Your task to perform on an android device: Open the map Image 0: 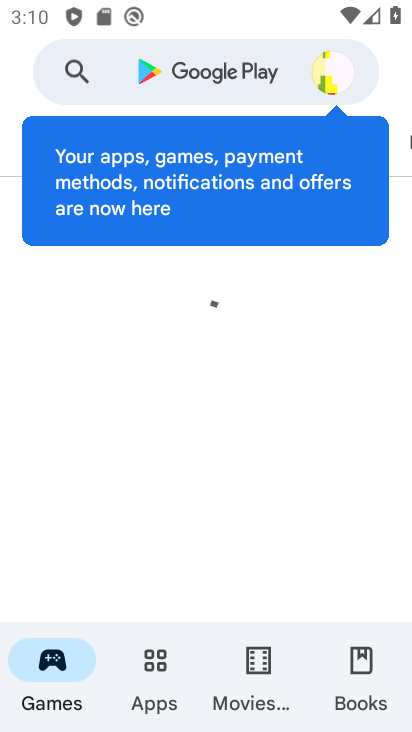
Step 0: press home button
Your task to perform on an android device: Open the map Image 1: 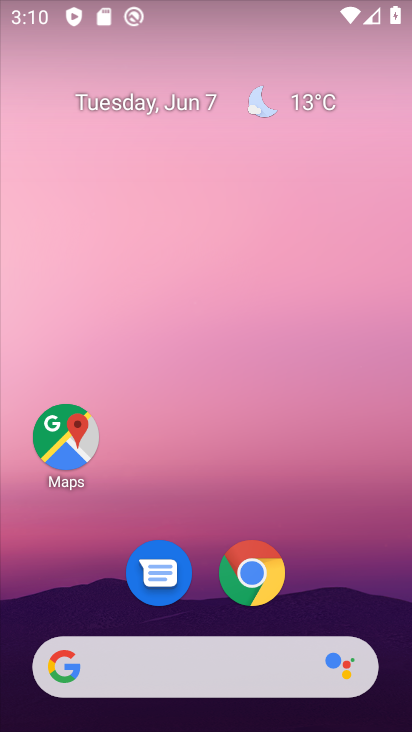
Step 1: click (85, 455)
Your task to perform on an android device: Open the map Image 2: 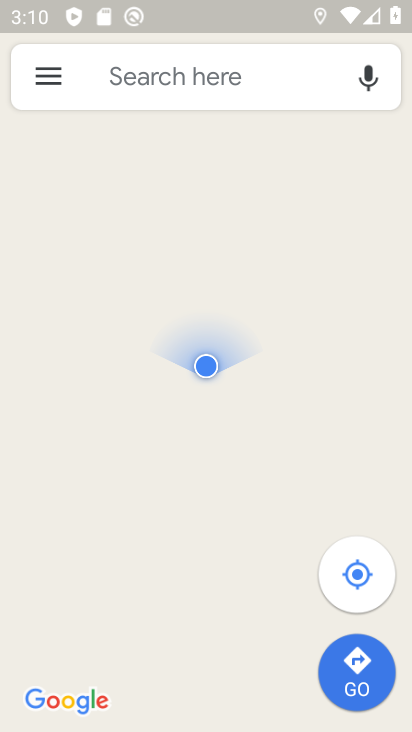
Step 2: task complete